Your task to perform on an android device: When is my next appointment? Image 0: 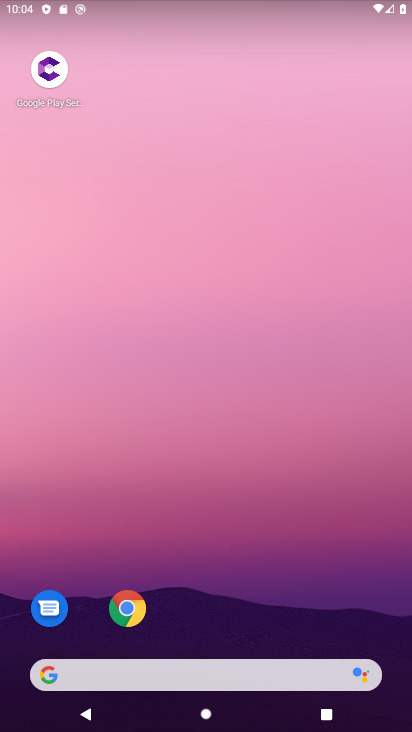
Step 0: drag from (268, 571) to (242, 6)
Your task to perform on an android device: When is my next appointment? Image 1: 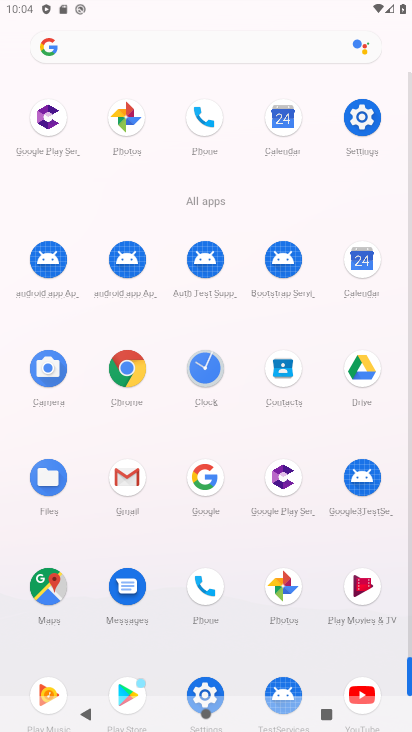
Step 1: drag from (10, 537) to (7, 184)
Your task to perform on an android device: When is my next appointment? Image 2: 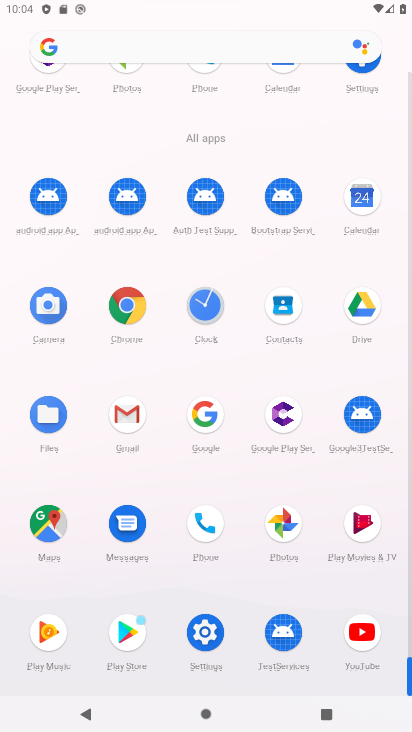
Step 2: click (366, 190)
Your task to perform on an android device: When is my next appointment? Image 3: 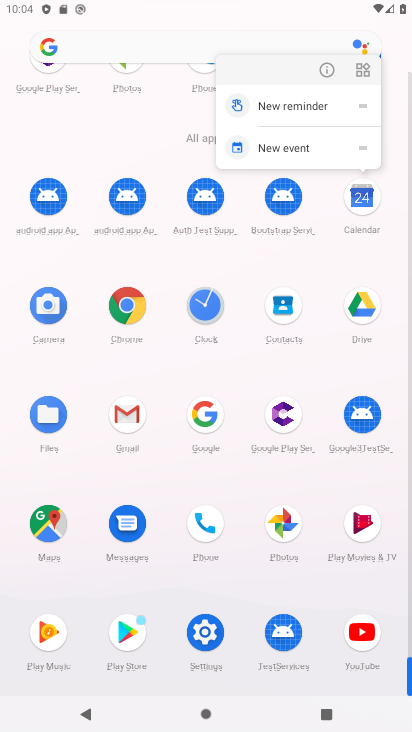
Step 3: click (362, 190)
Your task to perform on an android device: When is my next appointment? Image 4: 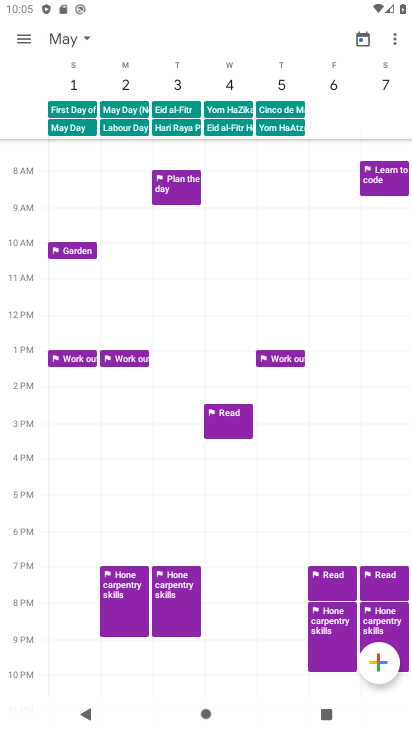
Step 4: click (19, 41)
Your task to perform on an android device: When is my next appointment? Image 5: 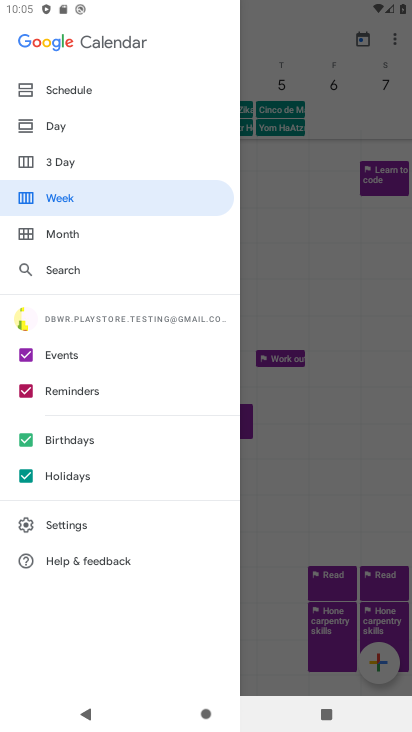
Step 5: click (28, 434)
Your task to perform on an android device: When is my next appointment? Image 6: 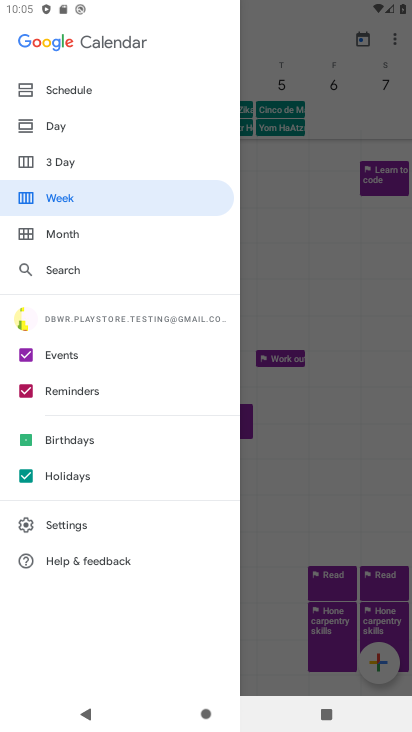
Step 6: click (33, 472)
Your task to perform on an android device: When is my next appointment? Image 7: 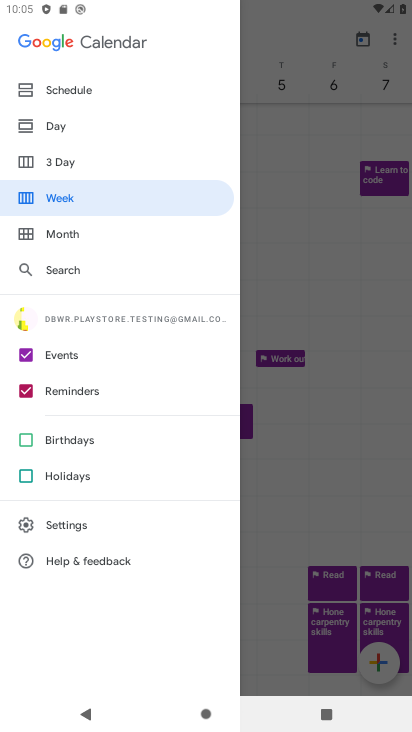
Step 7: click (353, 281)
Your task to perform on an android device: When is my next appointment? Image 8: 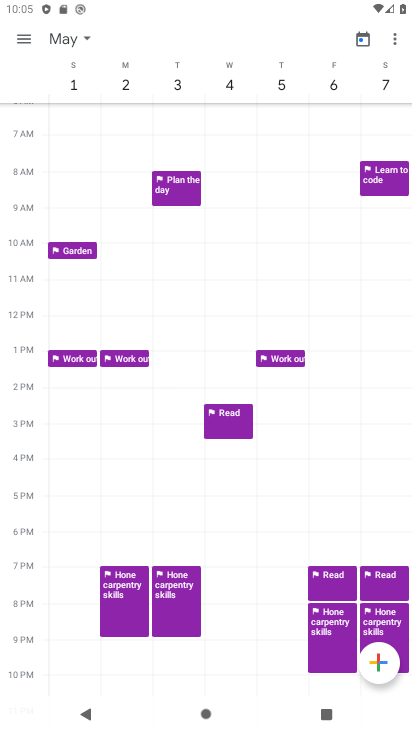
Step 8: click (24, 46)
Your task to perform on an android device: When is my next appointment? Image 9: 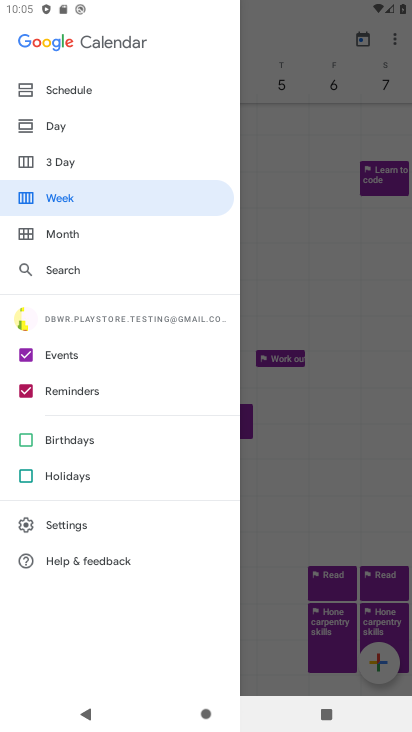
Step 9: click (69, 102)
Your task to perform on an android device: When is my next appointment? Image 10: 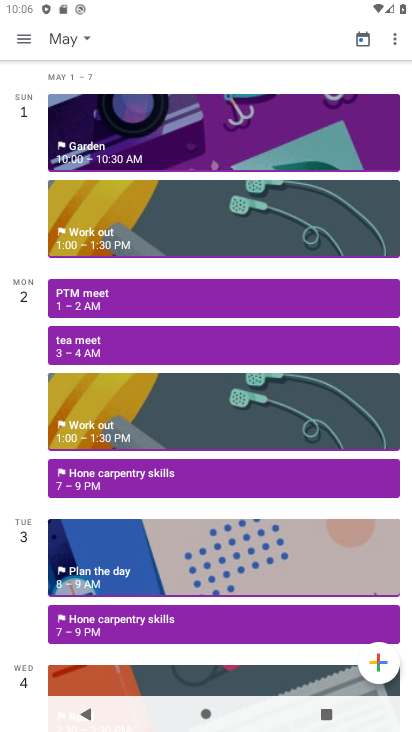
Step 10: task complete